Your task to perform on an android device: Set the phone to "Do not disturb". Image 0: 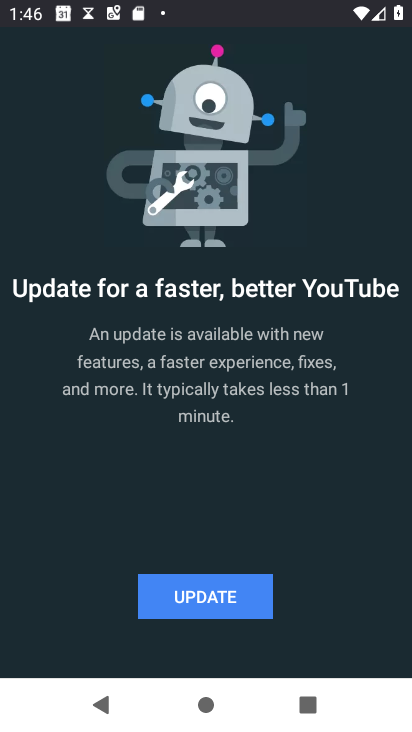
Step 0: press home button
Your task to perform on an android device: Set the phone to "Do not disturb". Image 1: 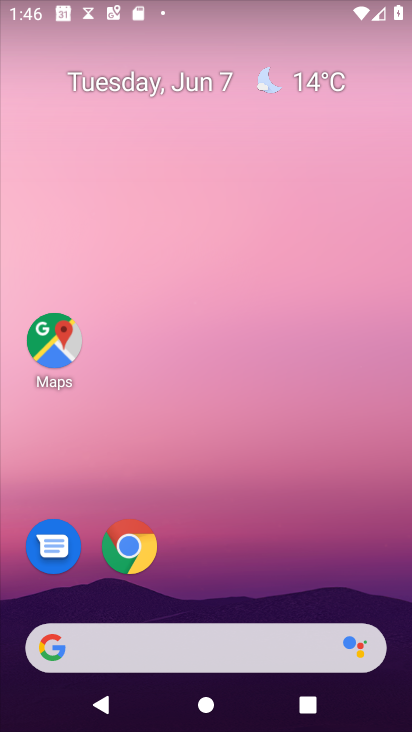
Step 1: drag from (235, 9) to (256, 527)
Your task to perform on an android device: Set the phone to "Do not disturb". Image 2: 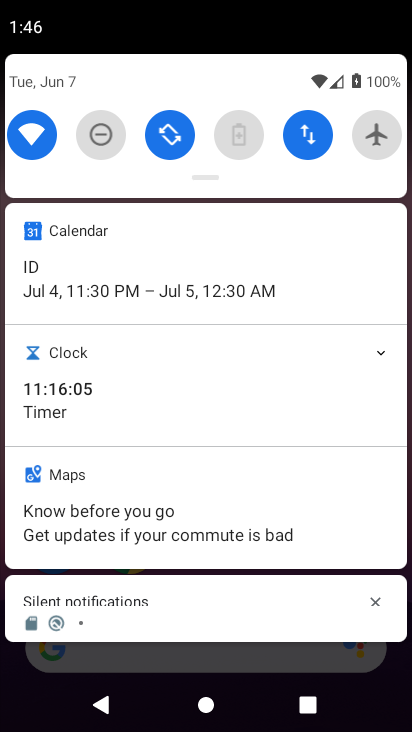
Step 2: click (95, 137)
Your task to perform on an android device: Set the phone to "Do not disturb". Image 3: 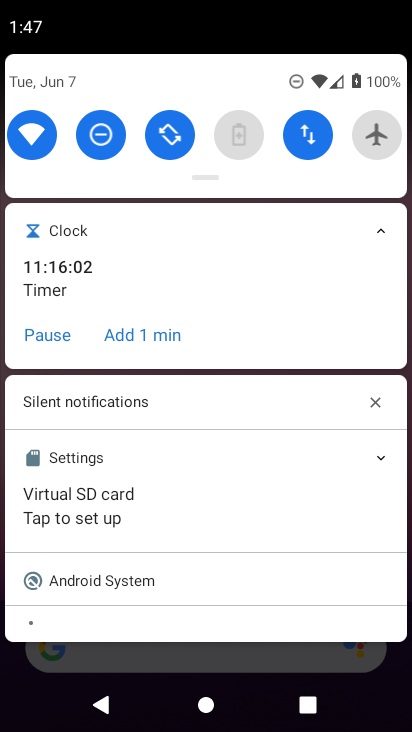
Step 3: task complete